Your task to perform on an android device: turn off location Image 0: 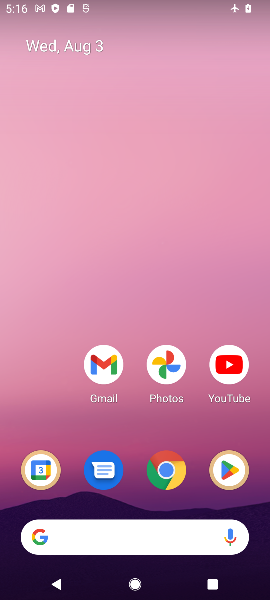
Step 0: drag from (63, 386) to (155, 110)
Your task to perform on an android device: turn off location Image 1: 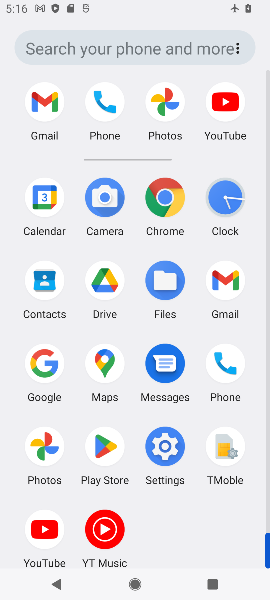
Step 1: click (173, 443)
Your task to perform on an android device: turn off location Image 2: 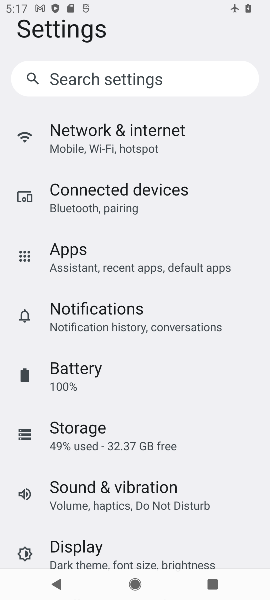
Step 2: drag from (143, 520) to (216, 181)
Your task to perform on an android device: turn off location Image 3: 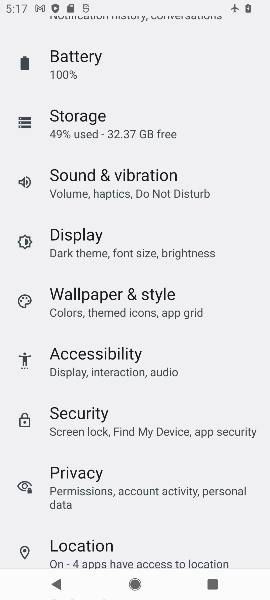
Step 3: click (74, 556)
Your task to perform on an android device: turn off location Image 4: 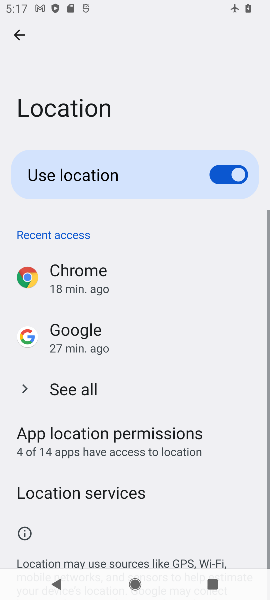
Step 4: click (235, 176)
Your task to perform on an android device: turn off location Image 5: 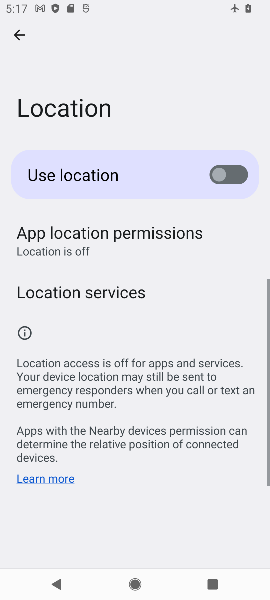
Step 5: task complete